Your task to perform on an android device: Show me popular videos on Youtube Image 0: 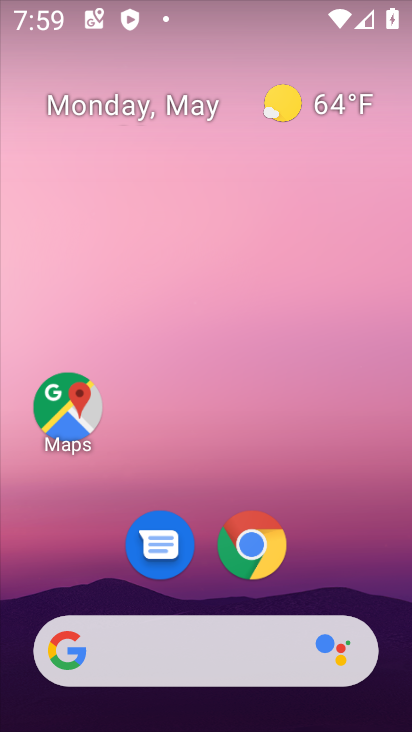
Step 0: drag from (199, 625) to (175, 99)
Your task to perform on an android device: Show me popular videos on Youtube Image 1: 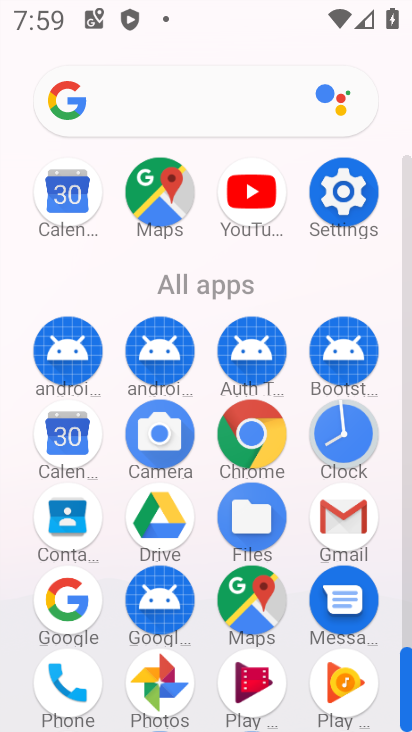
Step 1: click (248, 193)
Your task to perform on an android device: Show me popular videos on Youtube Image 2: 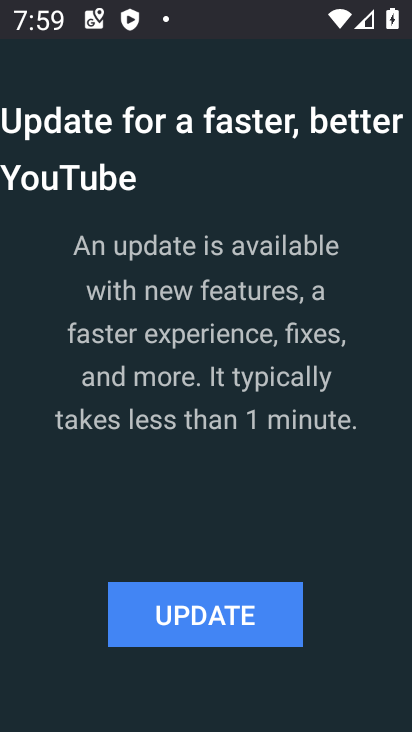
Step 2: click (142, 617)
Your task to perform on an android device: Show me popular videos on Youtube Image 3: 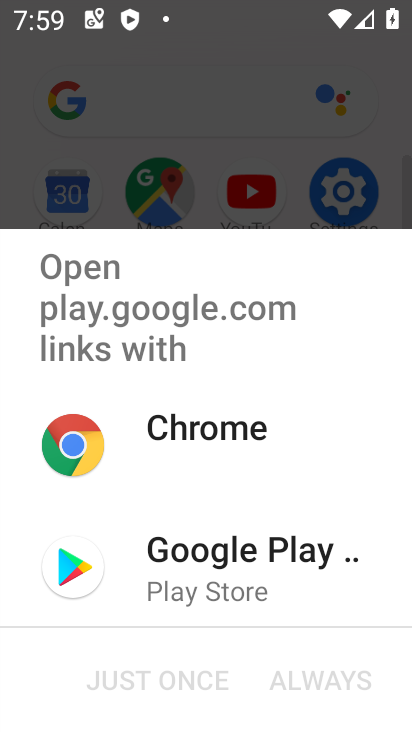
Step 3: click (231, 586)
Your task to perform on an android device: Show me popular videos on Youtube Image 4: 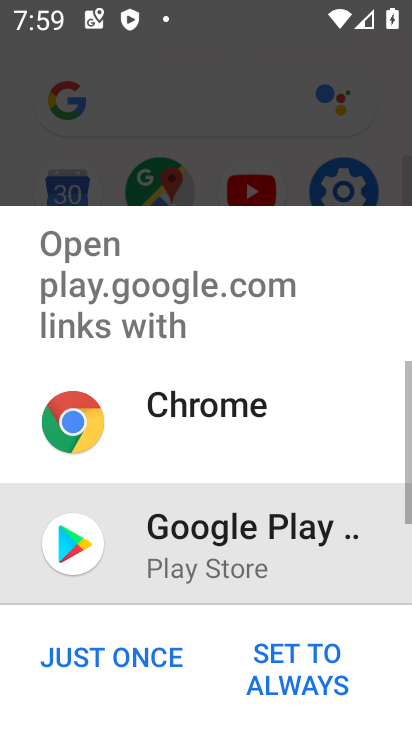
Step 4: click (118, 657)
Your task to perform on an android device: Show me popular videos on Youtube Image 5: 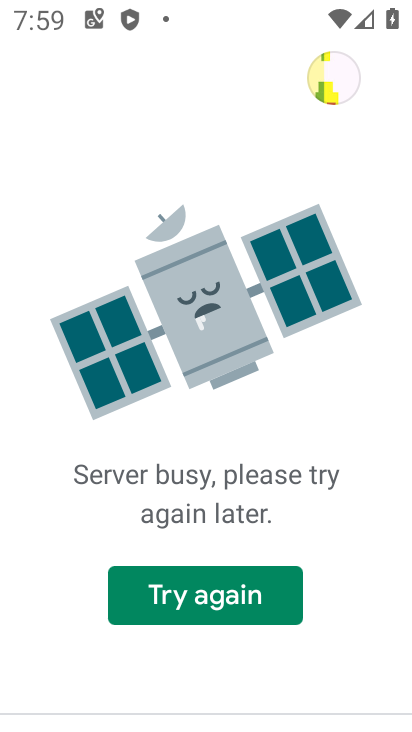
Step 5: task complete